Your task to perform on an android device: Do I have any events this weekend? Image 0: 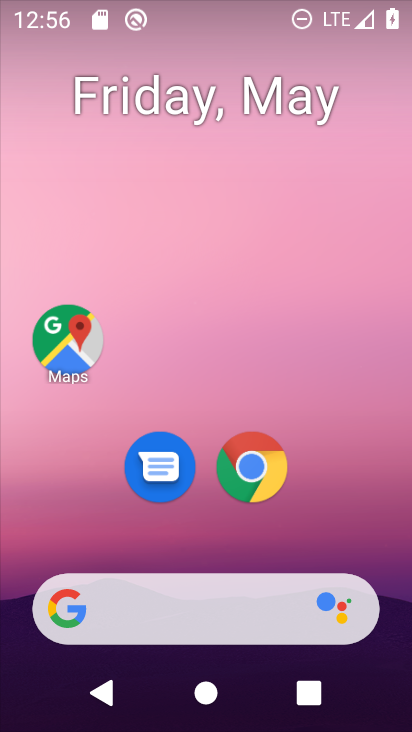
Step 0: drag from (303, 615) to (245, 71)
Your task to perform on an android device: Do I have any events this weekend? Image 1: 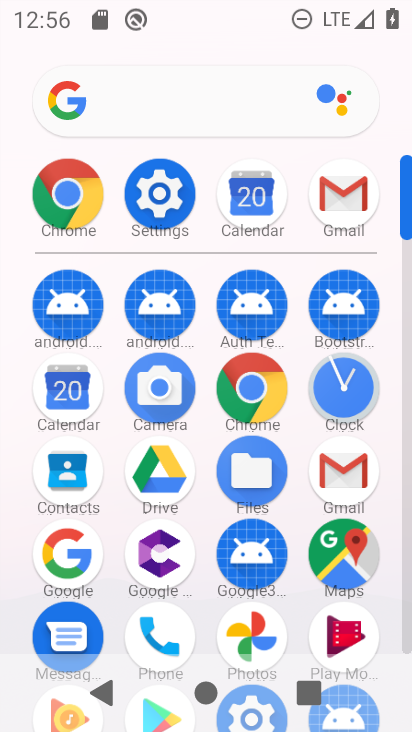
Step 1: click (54, 389)
Your task to perform on an android device: Do I have any events this weekend? Image 2: 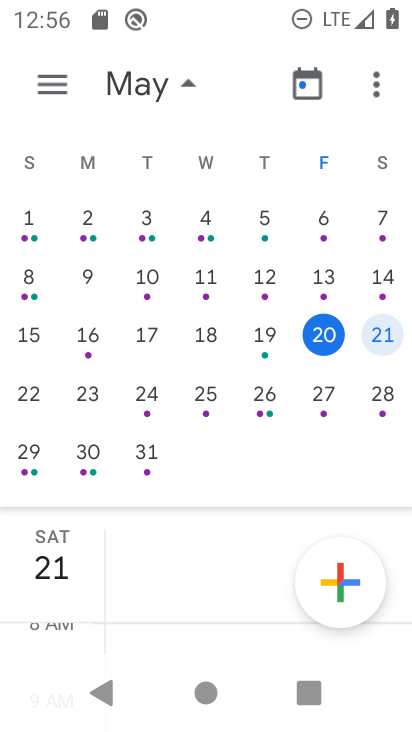
Step 2: click (378, 335)
Your task to perform on an android device: Do I have any events this weekend? Image 3: 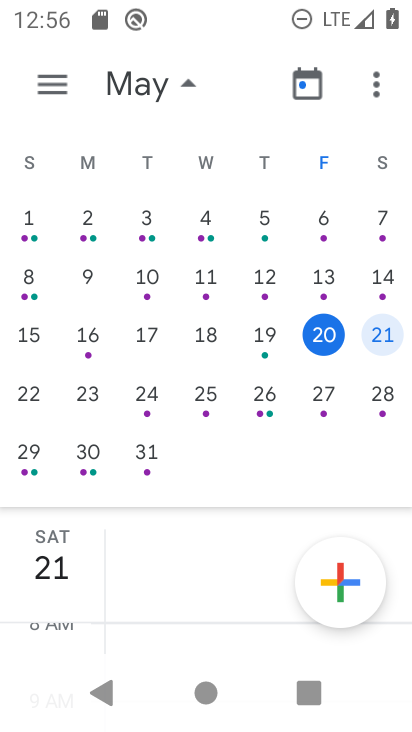
Step 3: task complete